Your task to perform on an android device: Open Google Chrome and open the bookmarks view Image 0: 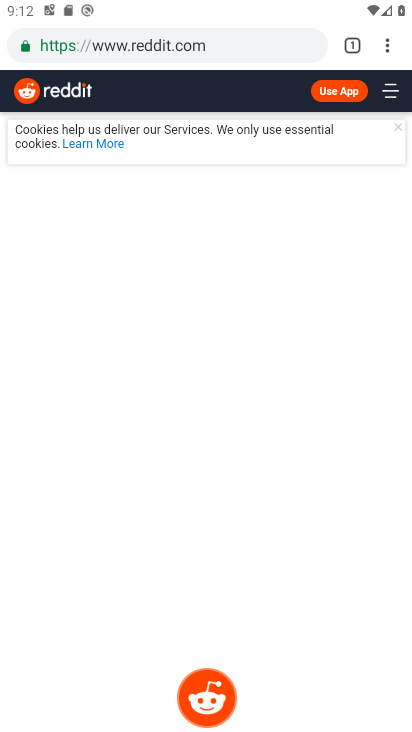
Step 0: click (387, 44)
Your task to perform on an android device: Open Google Chrome and open the bookmarks view Image 1: 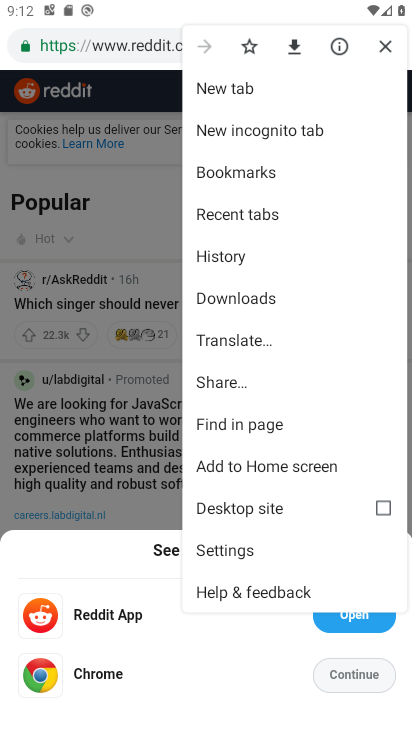
Step 1: click (253, 177)
Your task to perform on an android device: Open Google Chrome and open the bookmarks view Image 2: 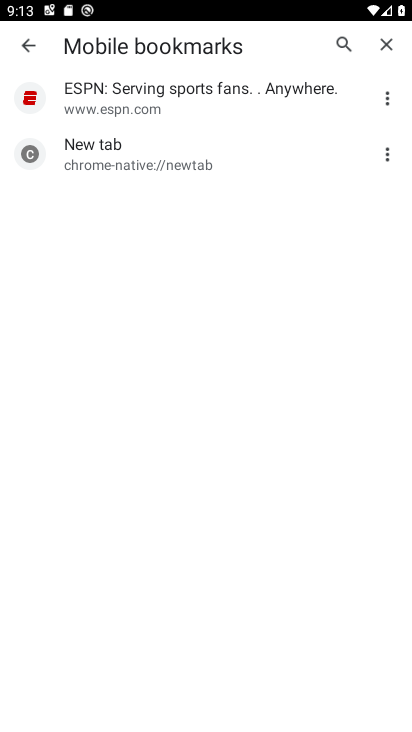
Step 2: task complete